Your task to perform on an android device: Open Android settings Image 0: 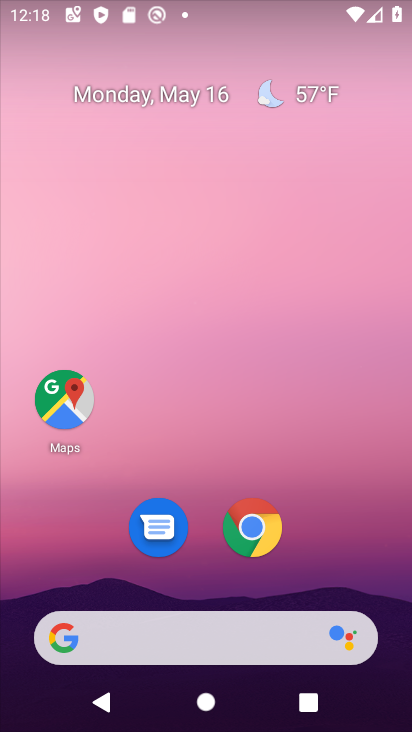
Step 0: drag from (233, 420) to (267, 128)
Your task to perform on an android device: Open Android settings Image 1: 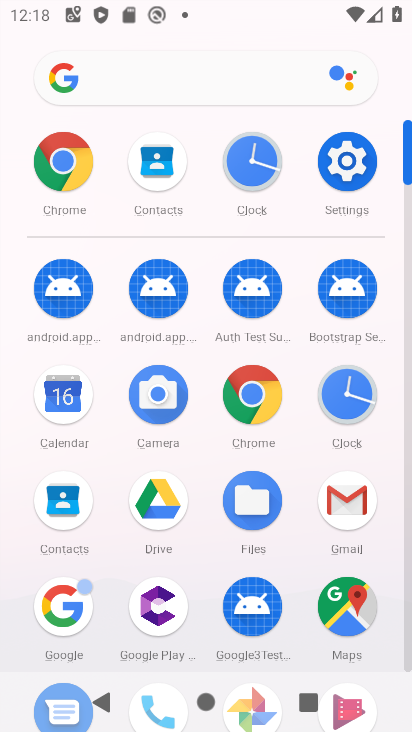
Step 1: click (329, 142)
Your task to perform on an android device: Open Android settings Image 2: 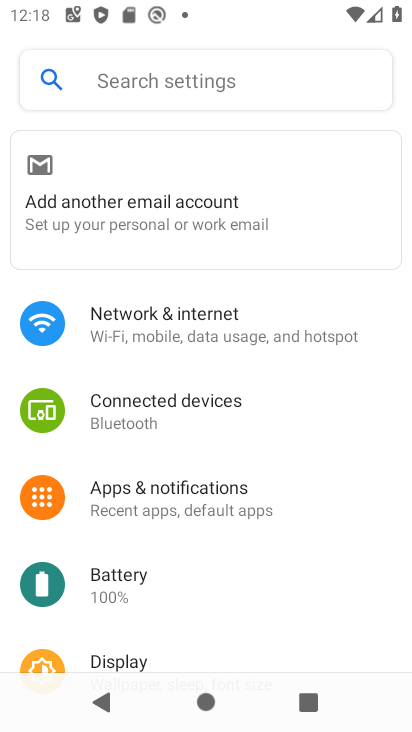
Step 2: drag from (171, 588) to (175, 256)
Your task to perform on an android device: Open Android settings Image 3: 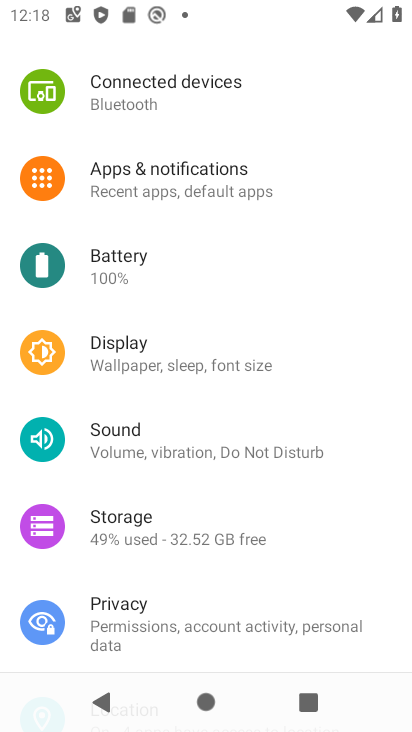
Step 3: drag from (144, 601) to (199, 124)
Your task to perform on an android device: Open Android settings Image 4: 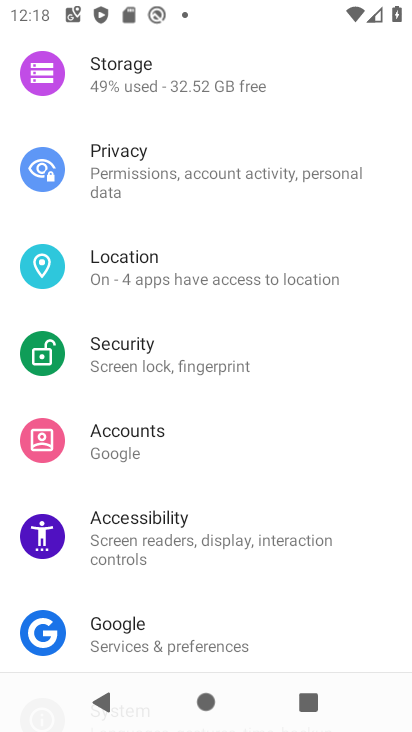
Step 4: drag from (191, 459) to (233, 13)
Your task to perform on an android device: Open Android settings Image 5: 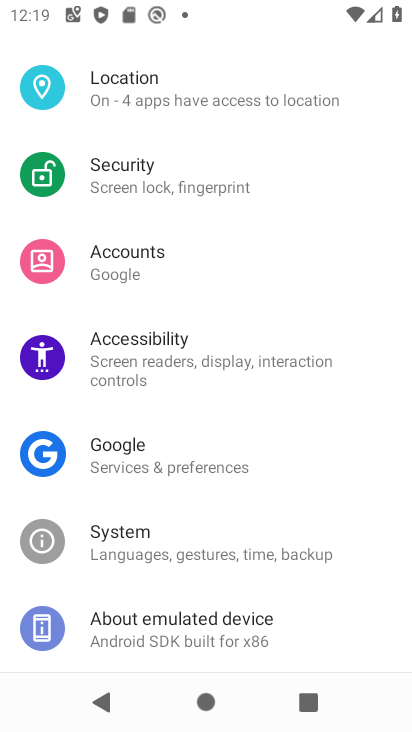
Step 5: drag from (149, 558) to (237, 114)
Your task to perform on an android device: Open Android settings Image 6: 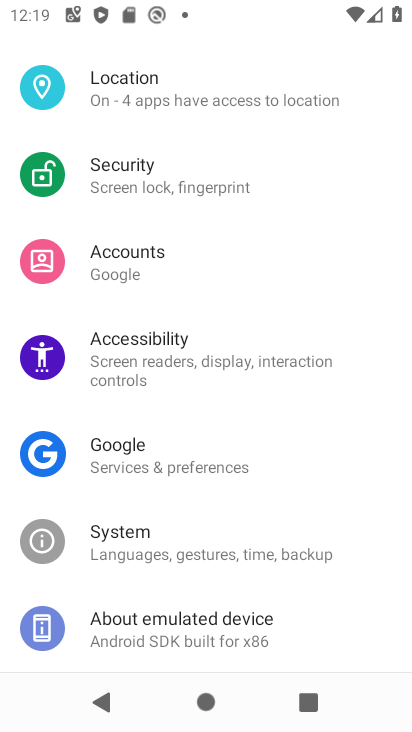
Step 6: click (181, 655)
Your task to perform on an android device: Open Android settings Image 7: 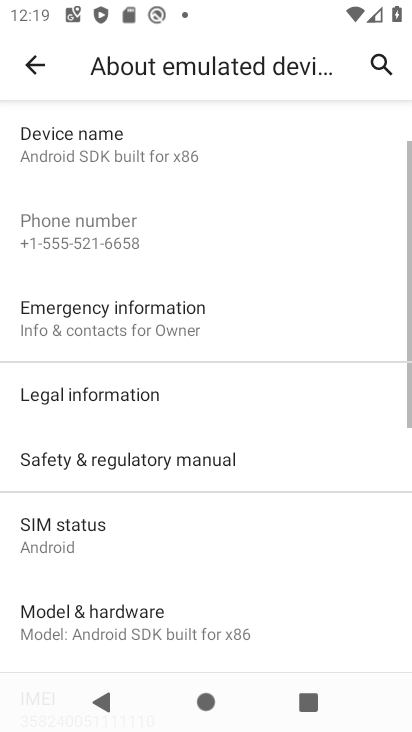
Step 7: drag from (109, 592) to (136, 395)
Your task to perform on an android device: Open Android settings Image 8: 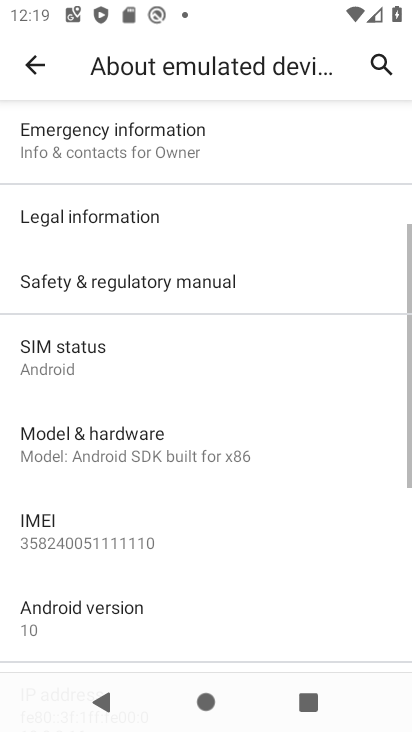
Step 8: click (92, 617)
Your task to perform on an android device: Open Android settings Image 9: 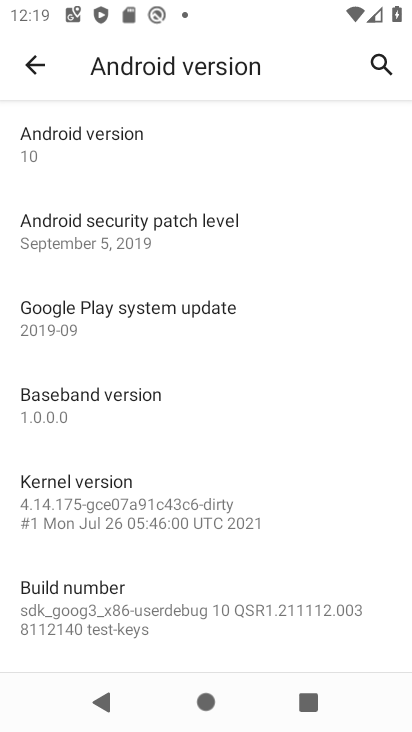
Step 9: task complete